Your task to perform on an android device: When is my next appointment? Image 0: 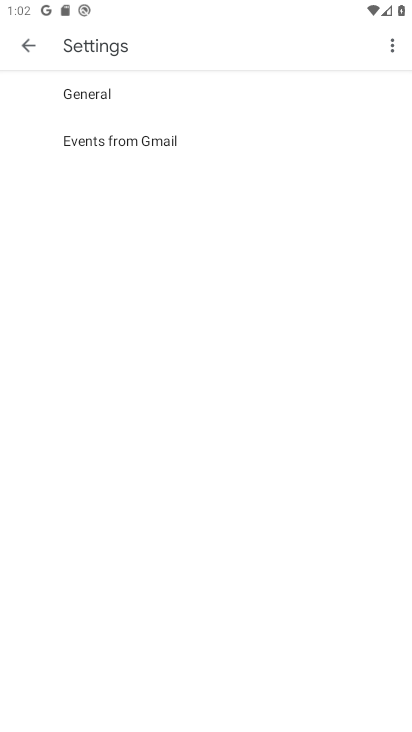
Step 0: press back button
Your task to perform on an android device: When is my next appointment? Image 1: 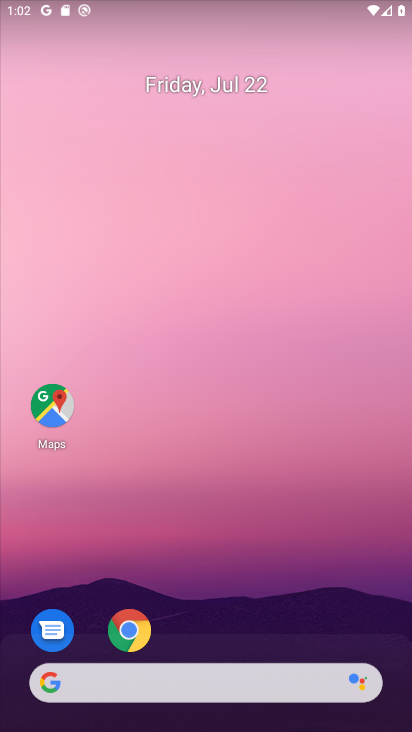
Step 1: drag from (251, 613) to (291, 2)
Your task to perform on an android device: When is my next appointment? Image 2: 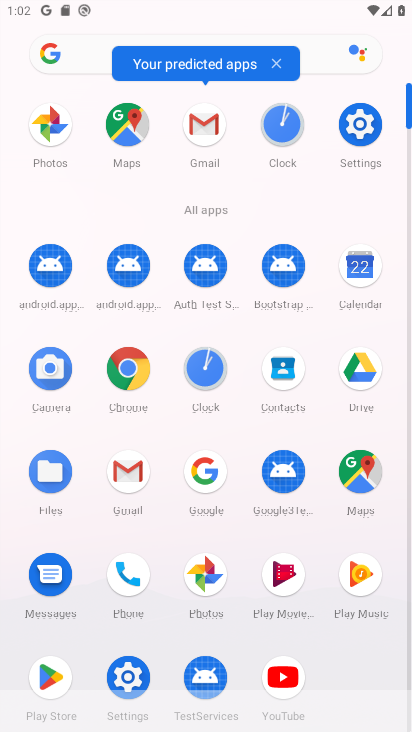
Step 2: click (367, 282)
Your task to perform on an android device: When is my next appointment? Image 3: 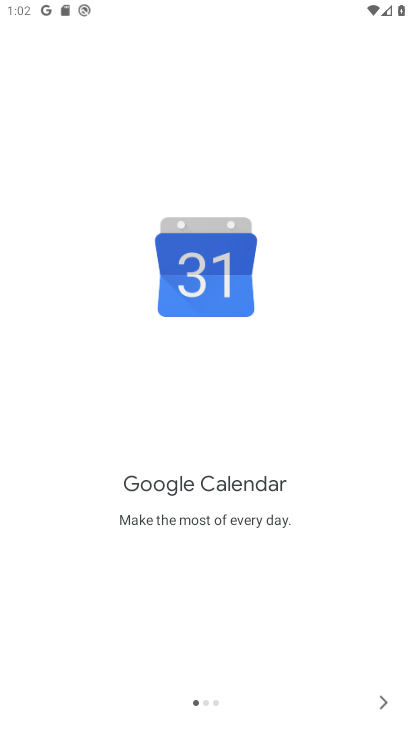
Step 3: click (390, 703)
Your task to perform on an android device: When is my next appointment? Image 4: 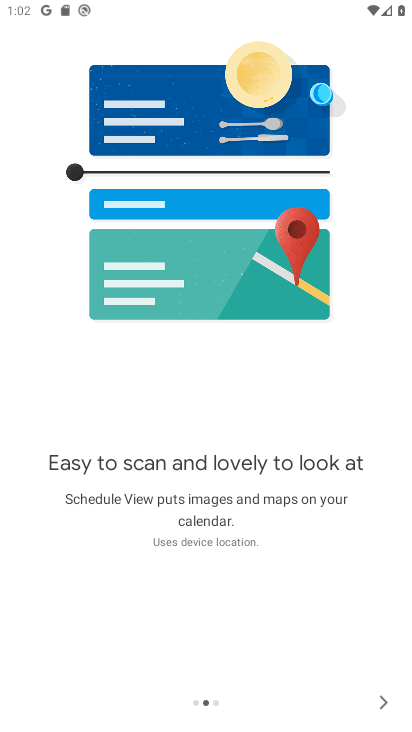
Step 4: click (382, 706)
Your task to perform on an android device: When is my next appointment? Image 5: 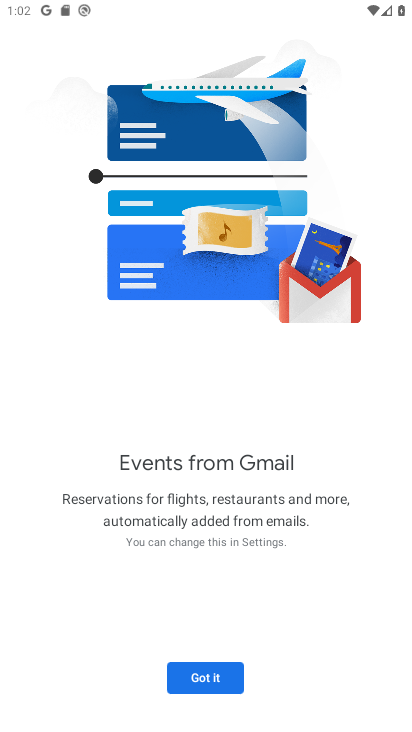
Step 5: click (213, 682)
Your task to perform on an android device: When is my next appointment? Image 6: 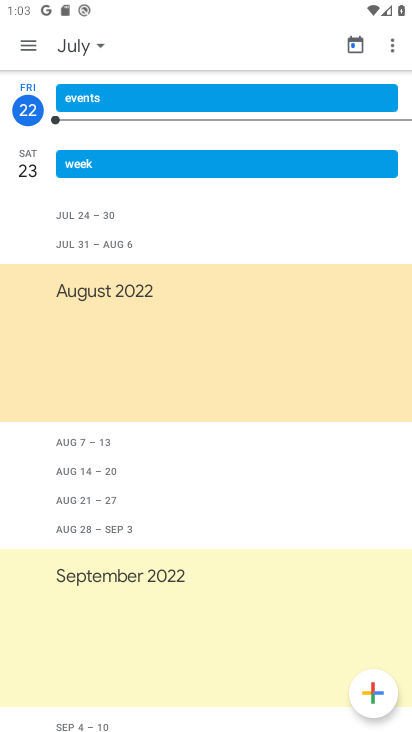
Step 6: click (95, 45)
Your task to perform on an android device: When is my next appointment? Image 7: 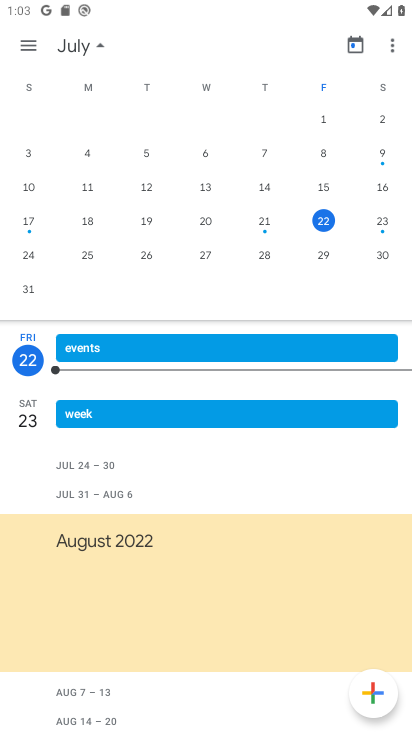
Step 7: click (311, 222)
Your task to perform on an android device: When is my next appointment? Image 8: 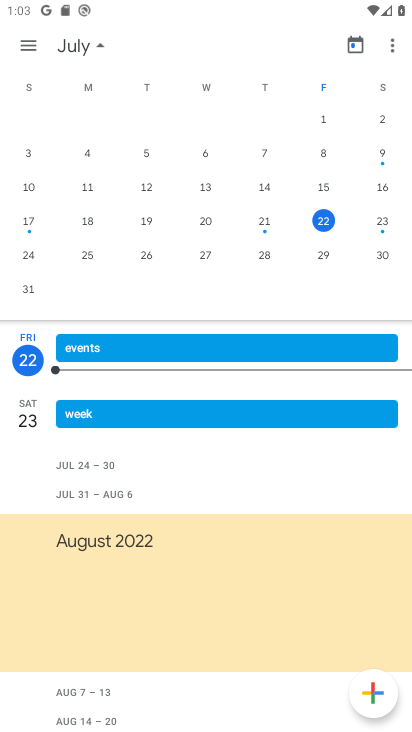
Step 8: task complete